Your task to perform on an android device: open chrome privacy settings Image 0: 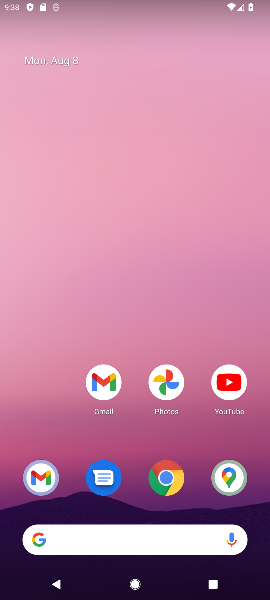
Step 0: drag from (171, 524) to (106, 99)
Your task to perform on an android device: open chrome privacy settings Image 1: 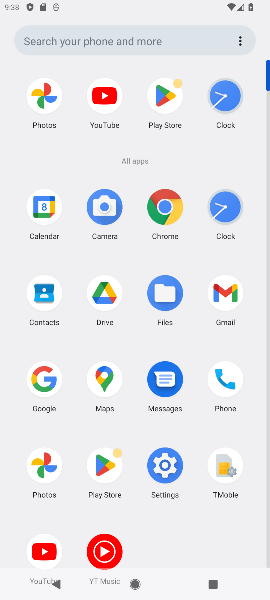
Step 1: click (170, 205)
Your task to perform on an android device: open chrome privacy settings Image 2: 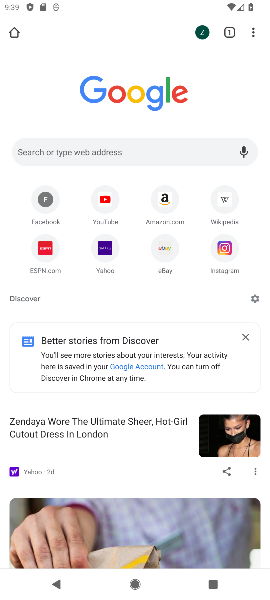
Step 2: click (258, 35)
Your task to perform on an android device: open chrome privacy settings Image 3: 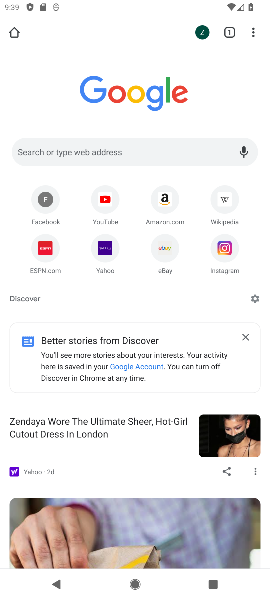
Step 3: drag from (251, 31) to (164, 276)
Your task to perform on an android device: open chrome privacy settings Image 4: 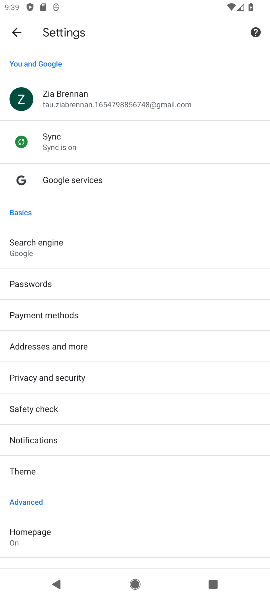
Step 4: drag from (96, 415) to (77, 306)
Your task to perform on an android device: open chrome privacy settings Image 5: 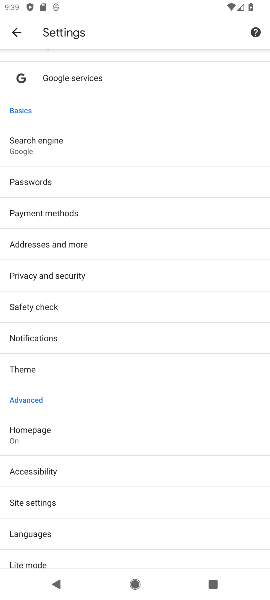
Step 5: click (74, 281)
Your task to perform on an android device: open chrome privacy settings Image 6: 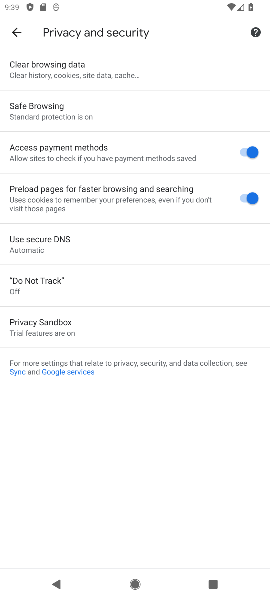
Step 6: task complete